Your task to perform on an android device: Go to internet settings Image 0: 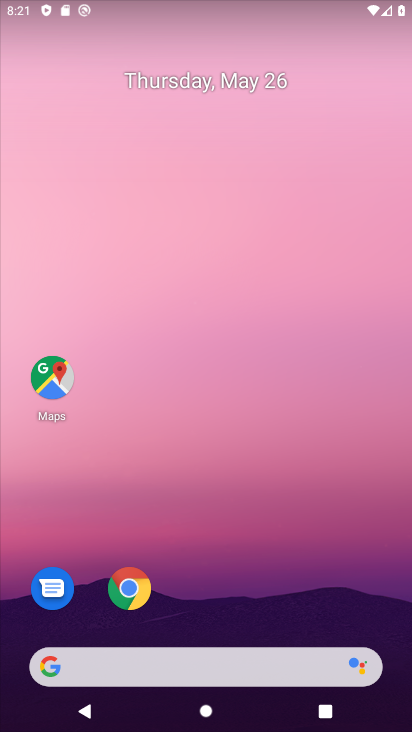
Step 0: drag from (367, 612) to (309, 91)
Your task to perform on an android device: Go to internet settings Image 1: 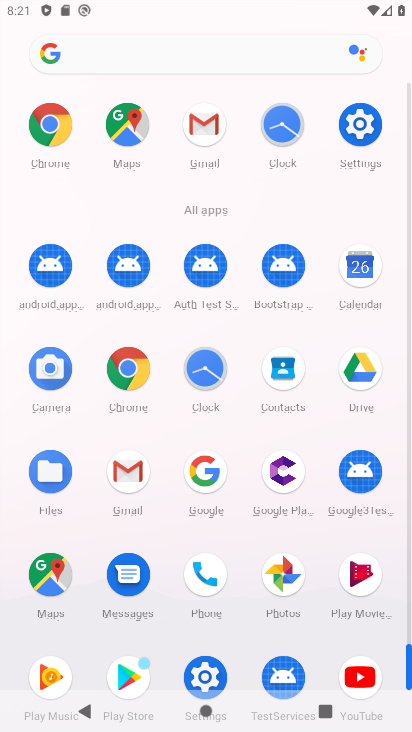
Step 1: click (410, 624)
Your task to perform on an android device: Go to internet settings Image 2: 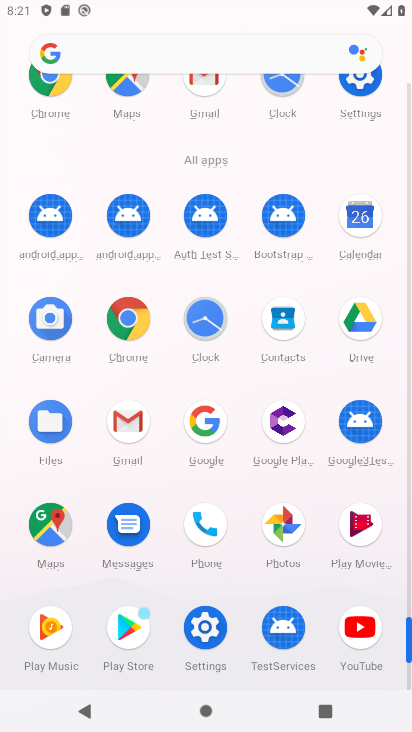
Step 2: click (208, 630)
Your task to perform on an android device: Go to internet settings Image 3: 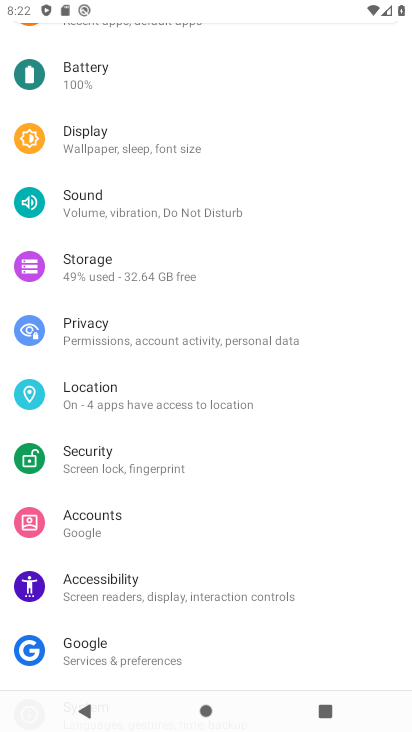
Step 3: drag from (286, 193) to (315, 575)
Your task to perform on an android device: Go to internet settings Image 4: 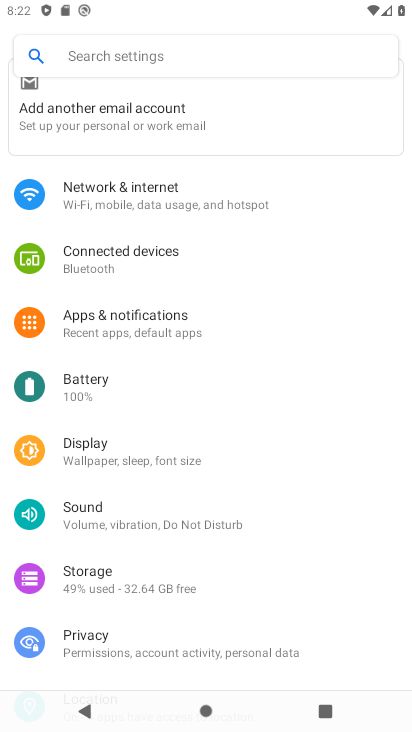
Step 4: click (140, 193)
Your task to perform on an android device: Go to internet settings Image 5: 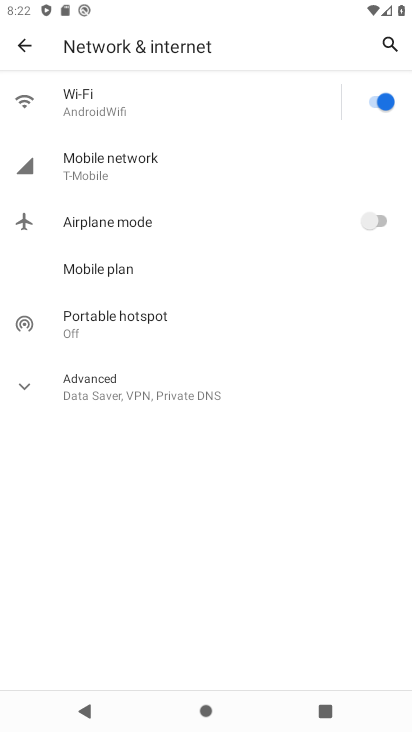
Step 5: click (62, 143)
Your task to perform on an android device: Go to internet settings Image 6: 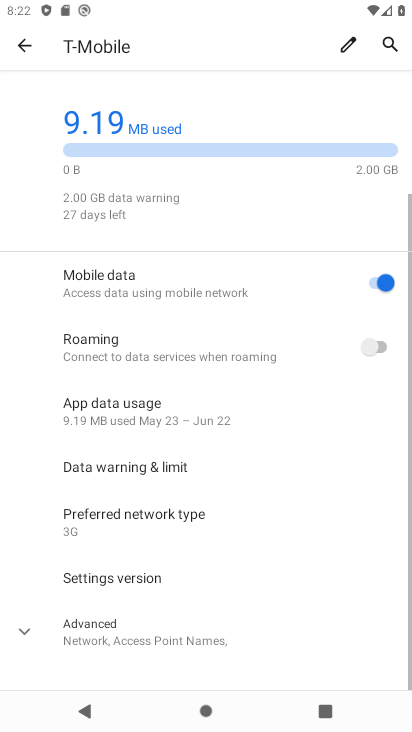
Step 6: task complete